Your task to perform on an android device: remove spam from my inbox in the gmail app Image 0: 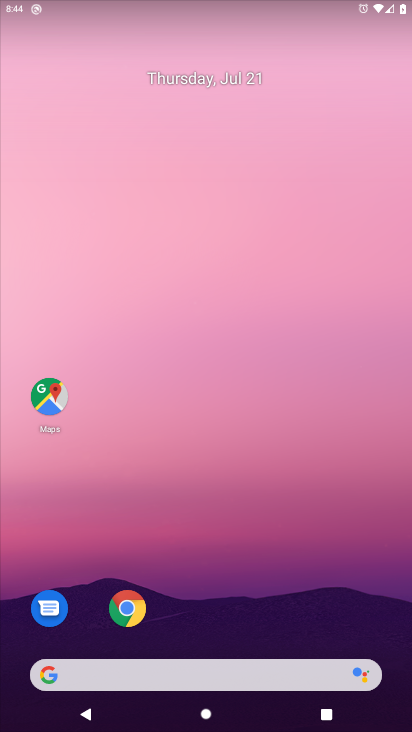
Step 0: drag from (44, 703) to (259, 59)
Your task to perform on an android device: remove spam from my inbox in the gmail app Image 1: 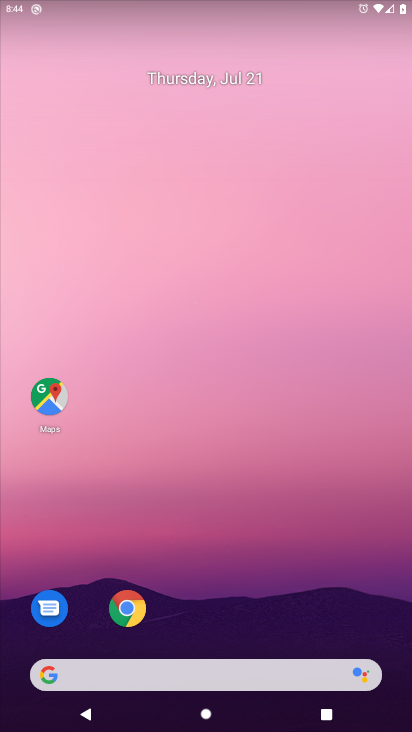
Step 1: drag from (18, 693) to (239, 3)
Your task to perform on an android device: remove spam from my inbox in the gmail app Image 2: 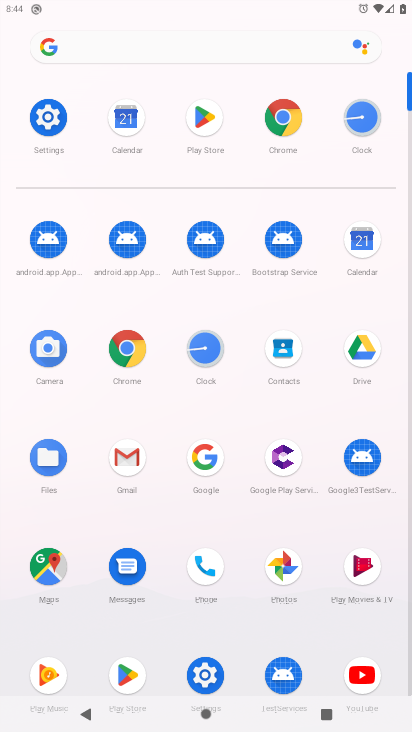
Step 2: click (127, 476)
Your task to perform on an android device: remove spam from my inbox in the gmail app Image 3: 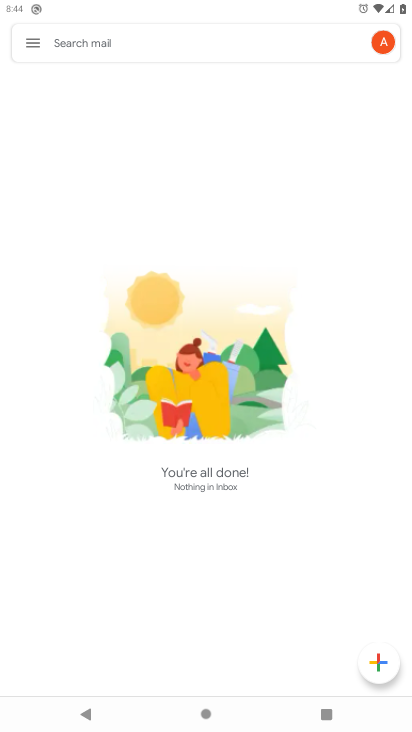
Step 3: click (30, 45)
Your task to perform on an android device: remove spam from my inbox in the gmail app Image 4: 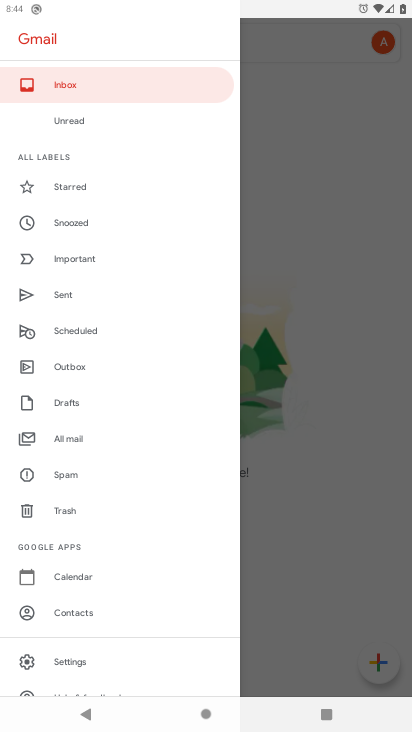
Step 4: click (70, 474)
Your task to perform on an android device: remove spam from my inbox in the gmail app Image 5: 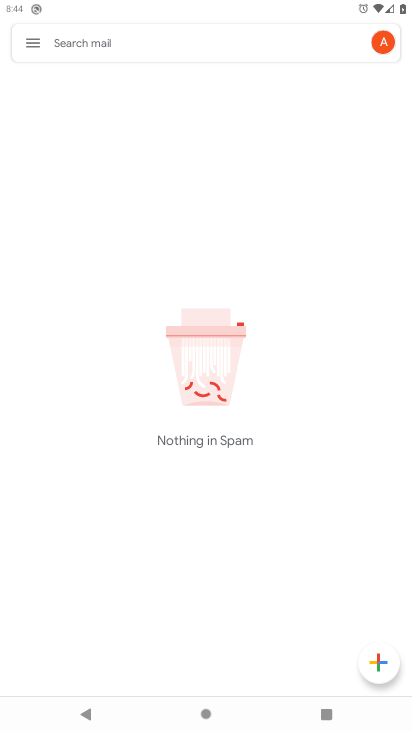
Step 5: task complete